Your task to perform on an android device: star an email in the gmail app Image 0: 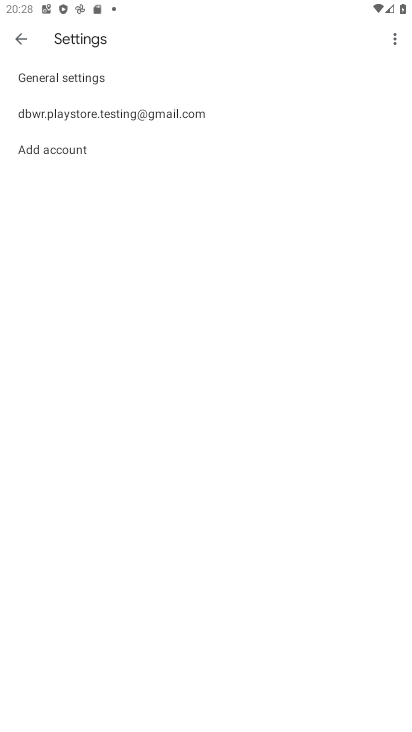
Step 0: click (19, 44)
Your task to perform on an android device: star an email in the gmail app Image 1: 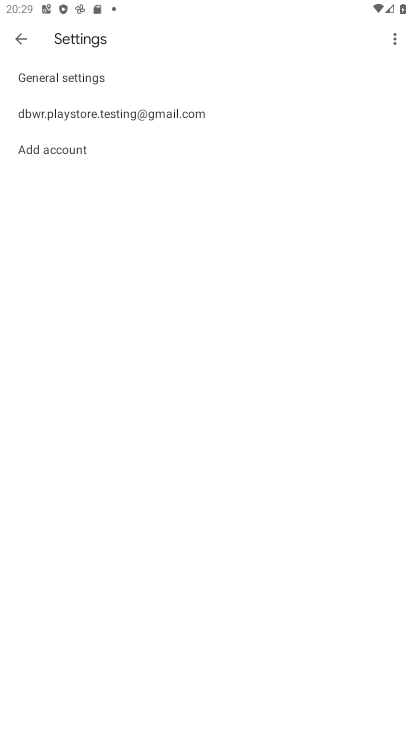
Step 1: click (18, 40)
Your task to perform on an android device: star an email in the gmail app Image 2: 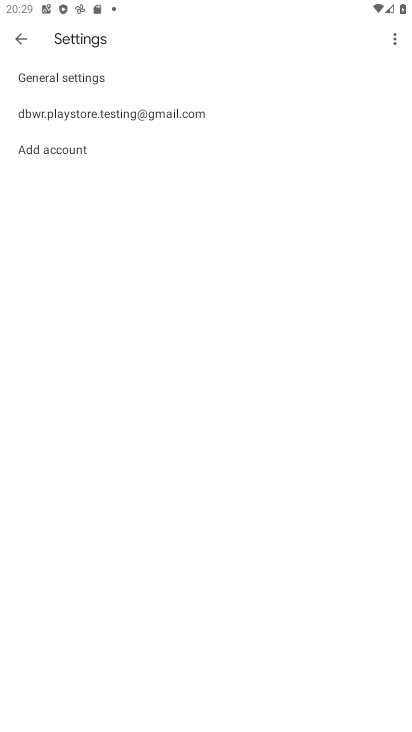
Step 2: click (17, 40)
Your task to perform on an android device: star an email in the gmail app Image 3: 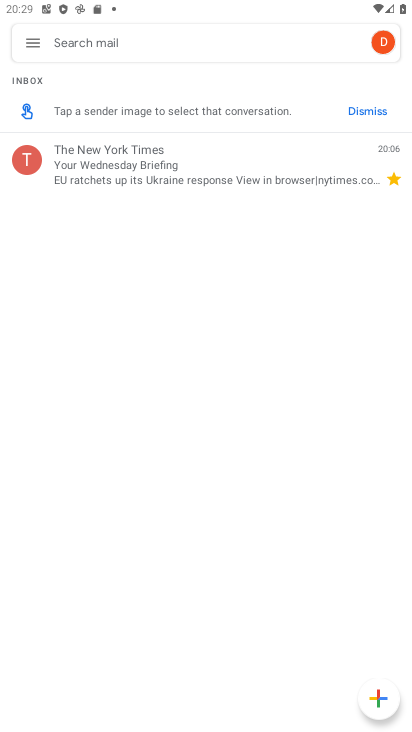
Step 3: click (33, 48)
Your task to perform on an android device: star an email in the gmail app Image 4: 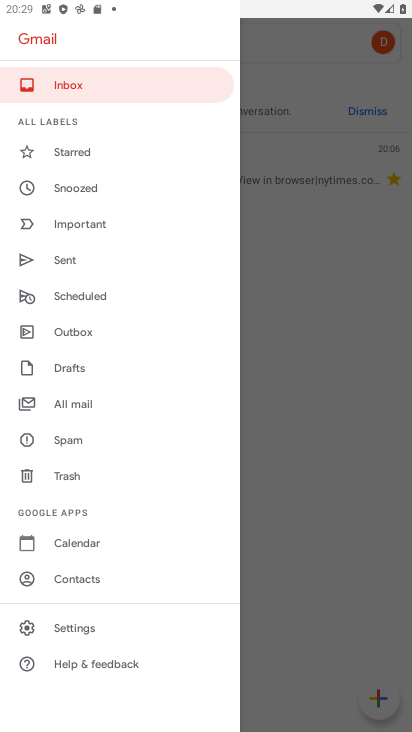
Step 4: click (62, 153)
Your task to perform on an android device: star an email in the gmail app Image 5: 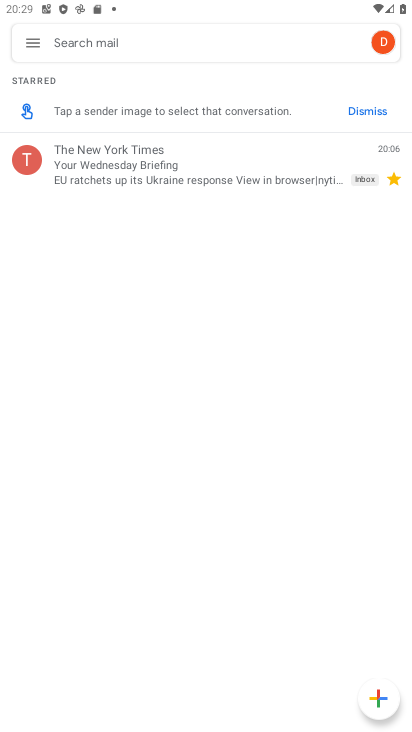
Step 5: click (232, 168)
Your task to perform on an android device: star an email in the gmail app Image 6: 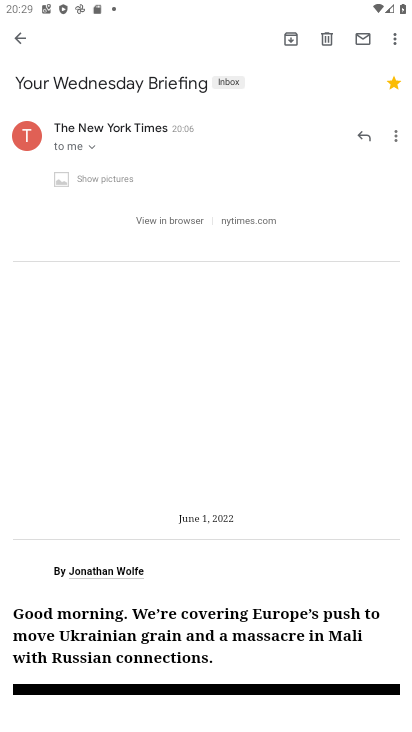
Step 6: click (396, 80)
Your task to perform on an android device: star an email in the gmail app Image 7: 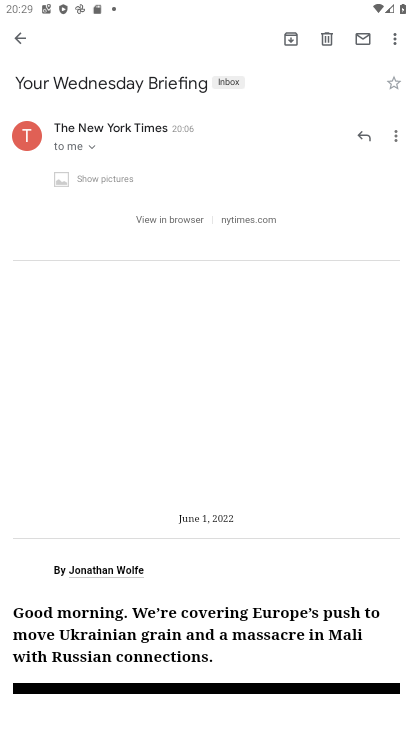
Step 7: click (394, 83)
Your task to perform on an android device: star an email in the gmail app Image 8: 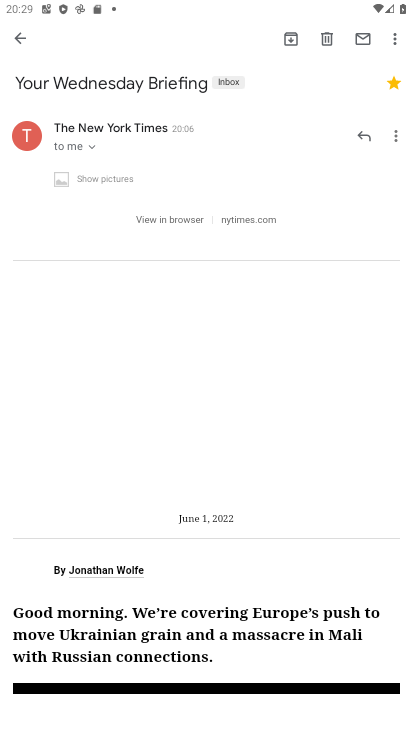
Step 8: task complete